Your task to perform on an android device: Go to Google Image 0: 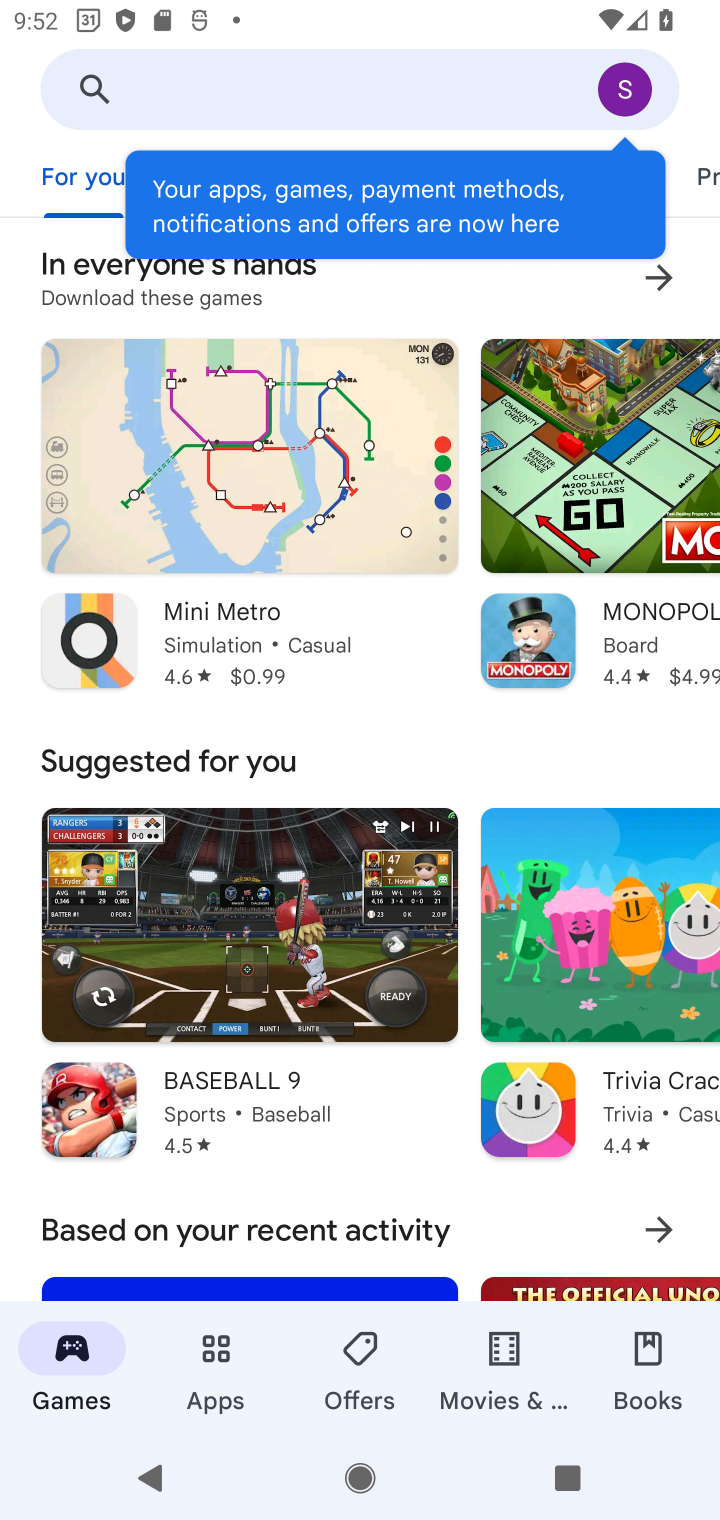
Step 0: press home button
Your task to perform on an android device: Go to Google Image 1: 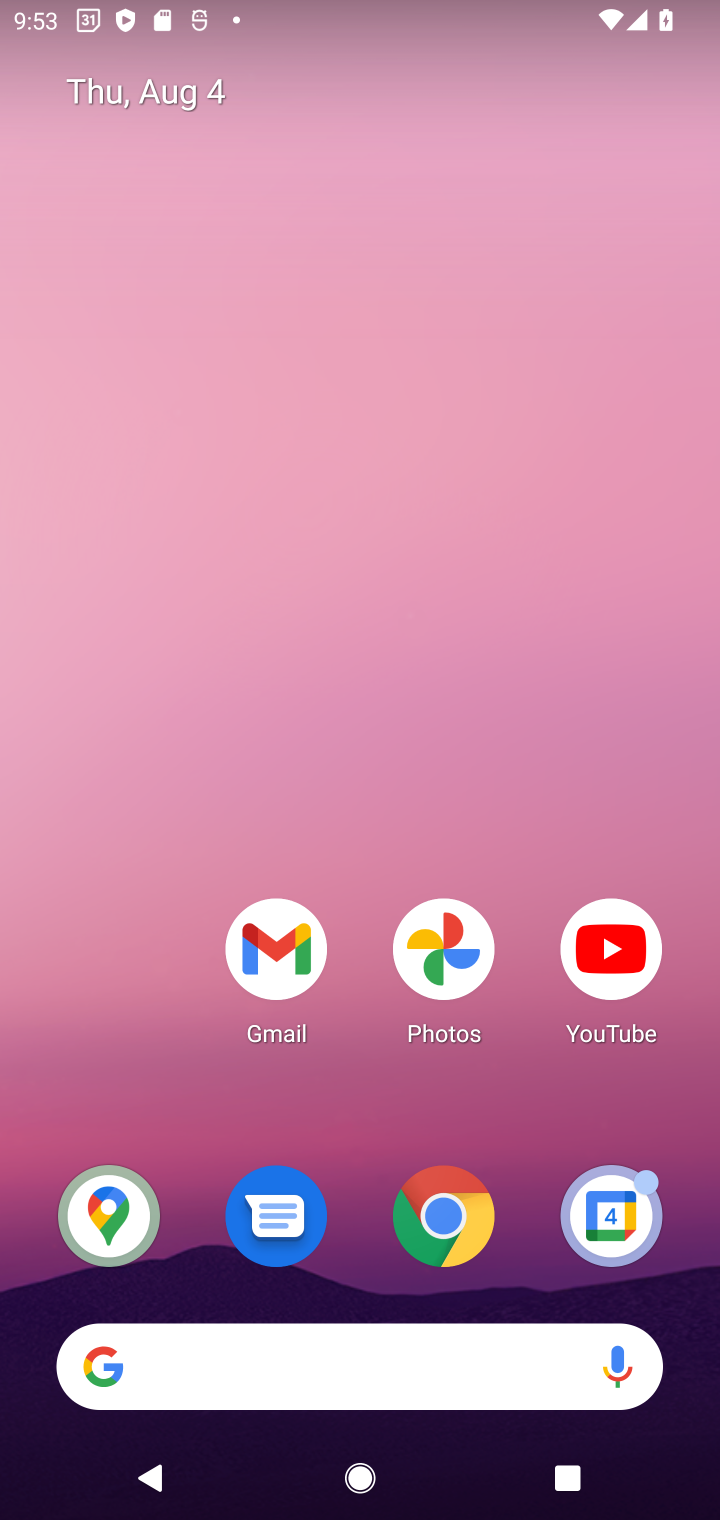
Step 1: drag from (312, 1400) to (321, 326)
Your task to perform on an android device: Go to Google Image 2: 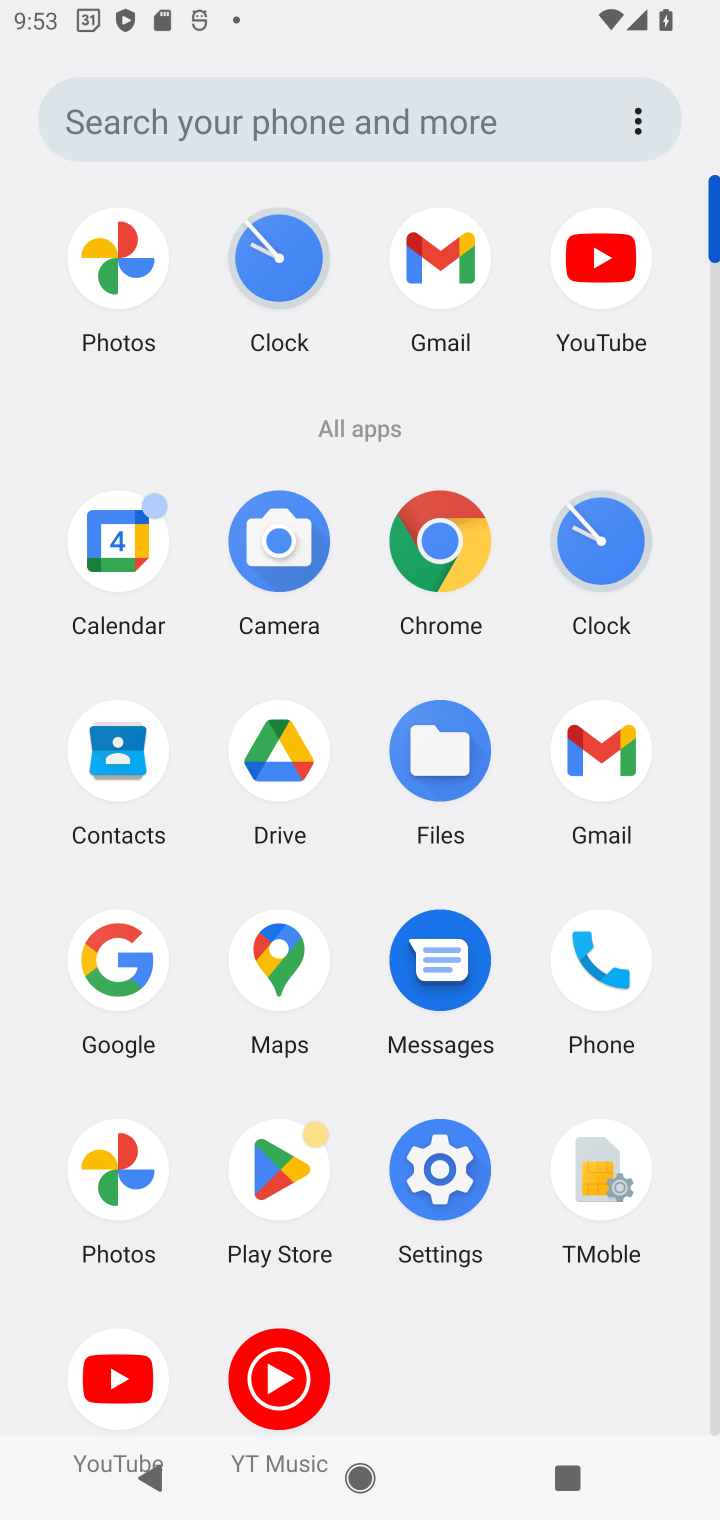
Step 2: click (117, 955)
Your task to perform on an android device: Go to Google Image 3: 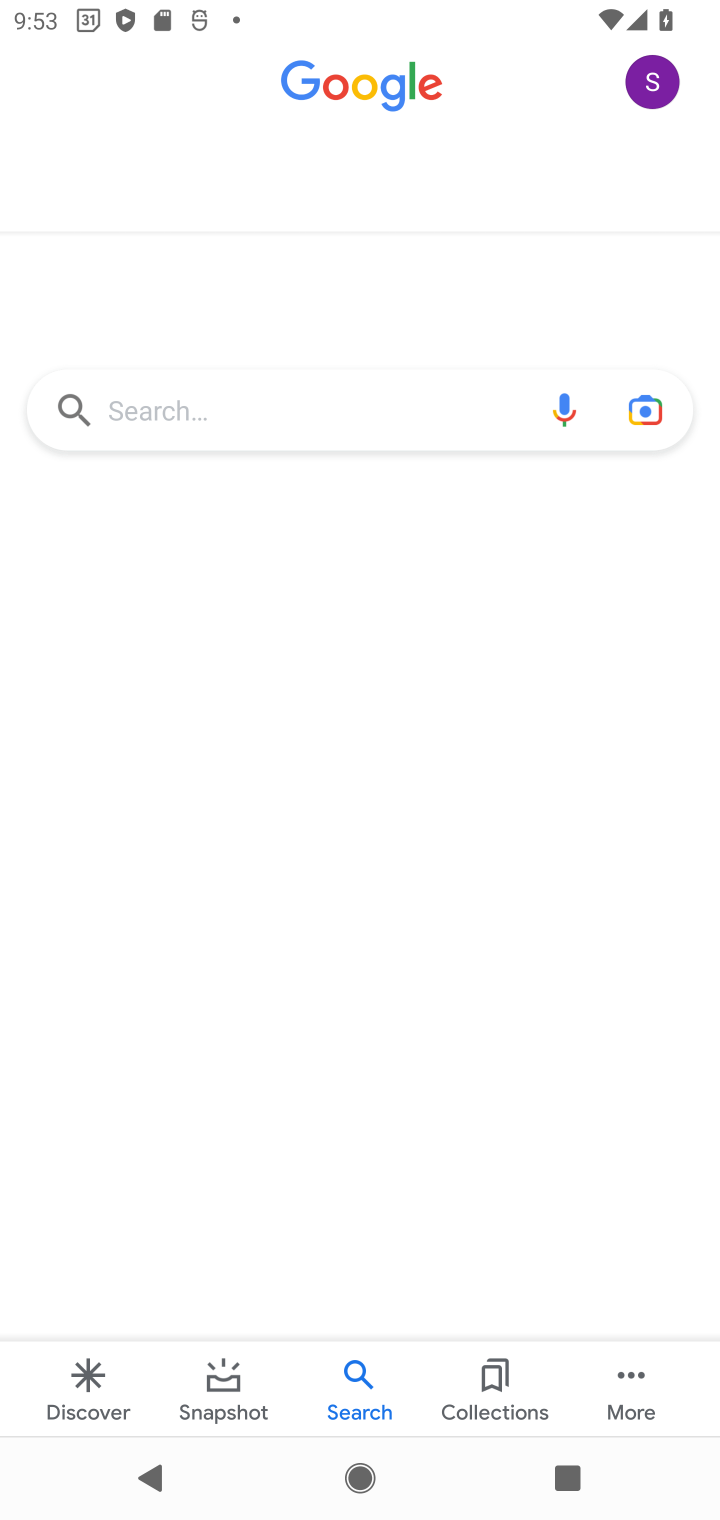
Step 3: task complete